Your task to perform on an android device: Show me recent news Image 0: 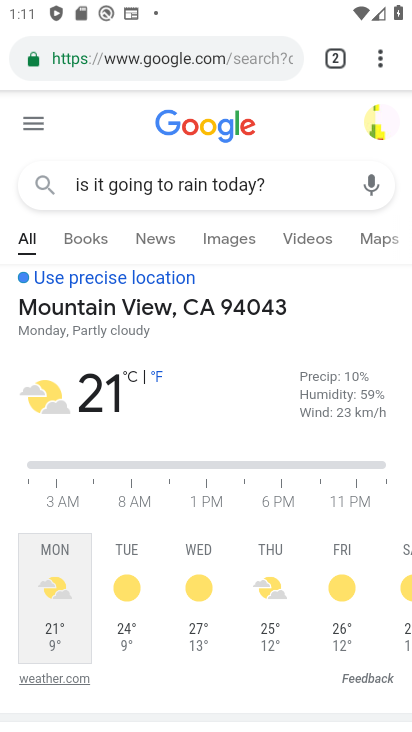
Step 0: press home button
Your task to perform on an android device: Show me recent news Image 1: 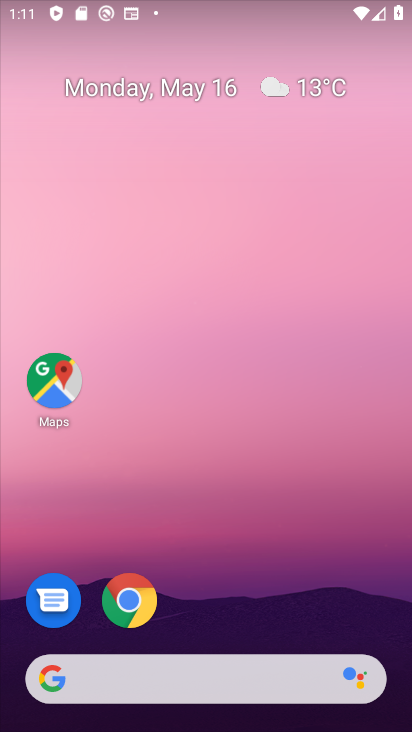
Step 1: click (145, 586)
Your task to perform on an android device: Show me recent news Image 2: 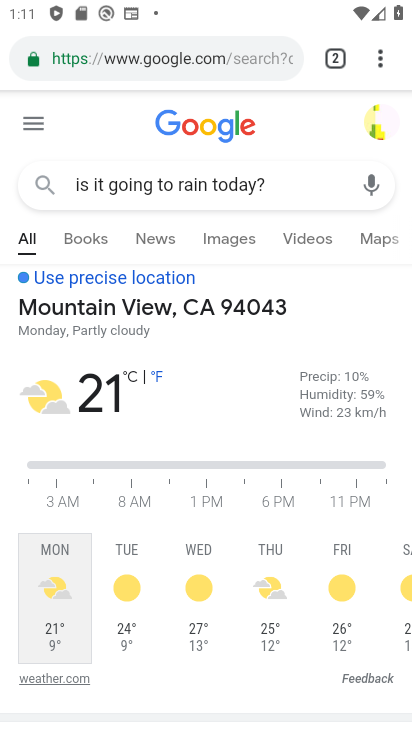
Step 2: click (334, 58)
Your task to perform on an android device: Show me recent news Image 3: 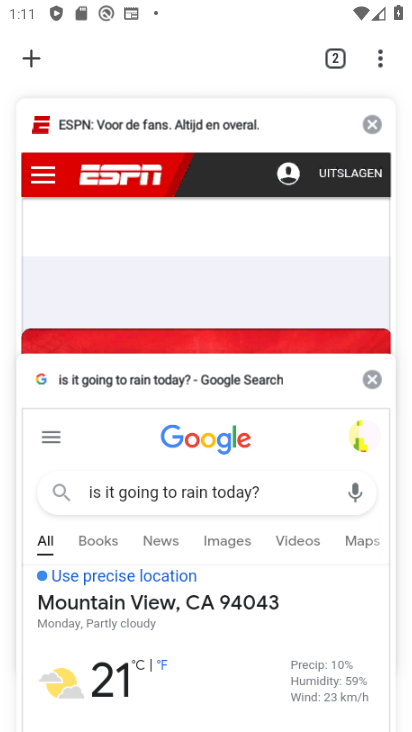
Step 3: click (31, 57)
Your task to perform on an android device: Show me recent news Image 4: 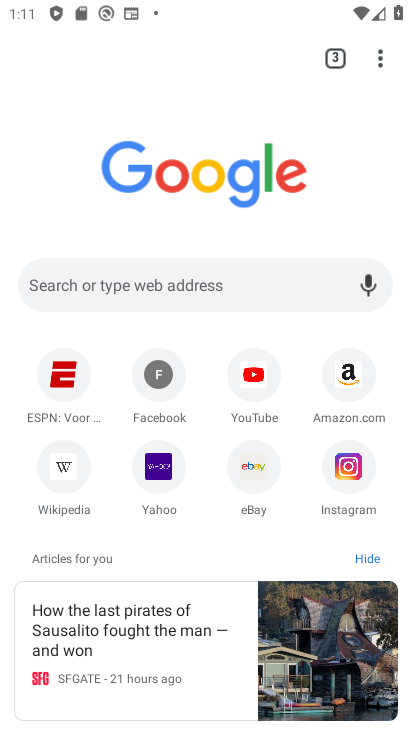
Step 4: click (131, 292)
Your task to perform on an android device: Show me recent news Image 5: 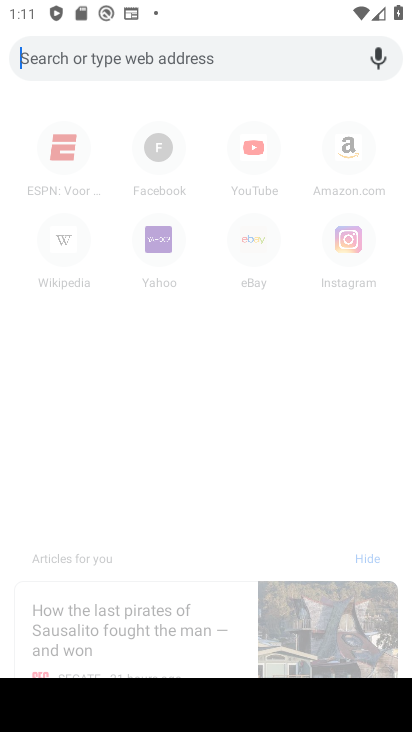
Step 5: type "recent news"
Your task to perform on an android device: Show me recent news Image 6: 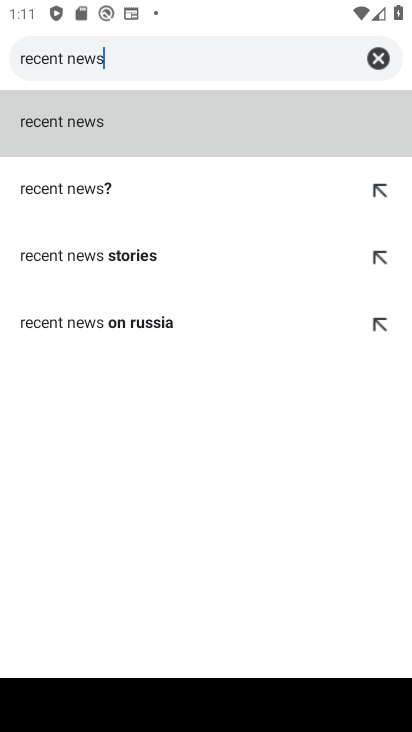
Step 6: click (73, 132)
Your task to perform on an android device: Show me recent news Image 7: 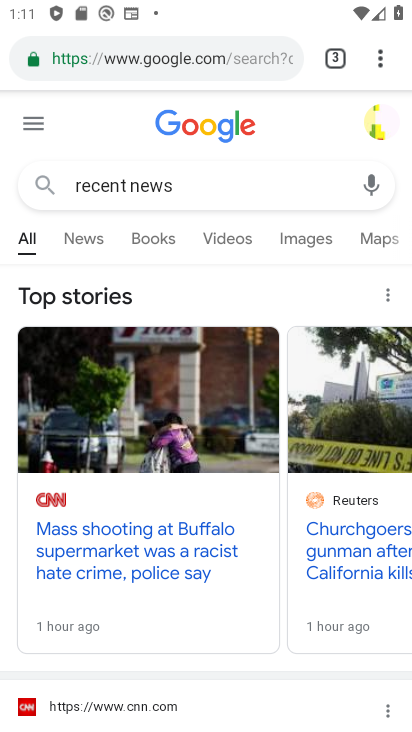
Step 7: click (84, 239)
Your task to perform on an android device: Show me recent news Image 8: 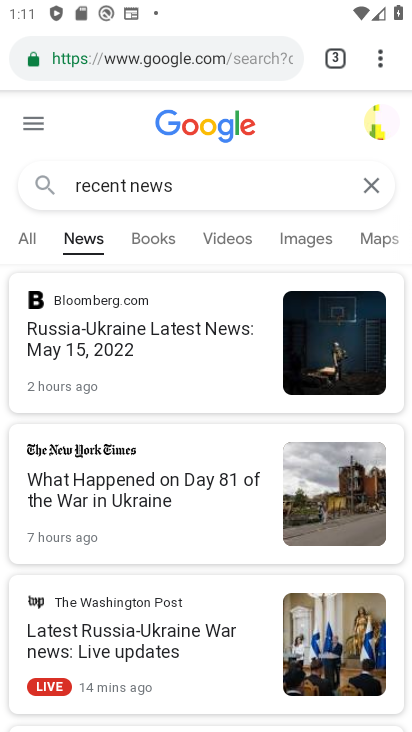
Step 8: task complete